Your task to perform on an android device: add a label to a message in the gmail app Image 0: 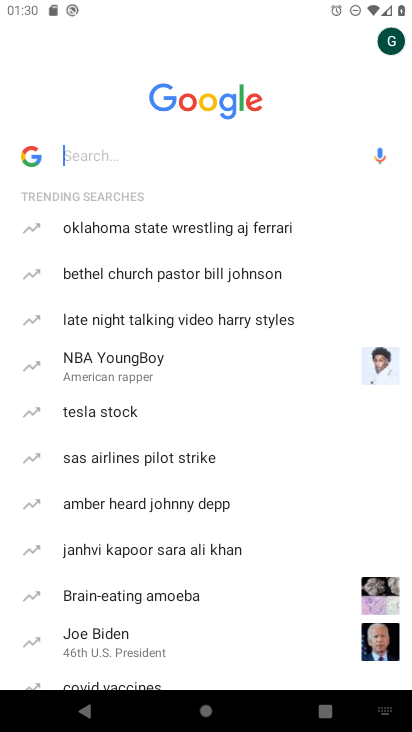
Step 0: press home button
Your task to perform on an android device: add a label to a message in the gmail app Image 1: 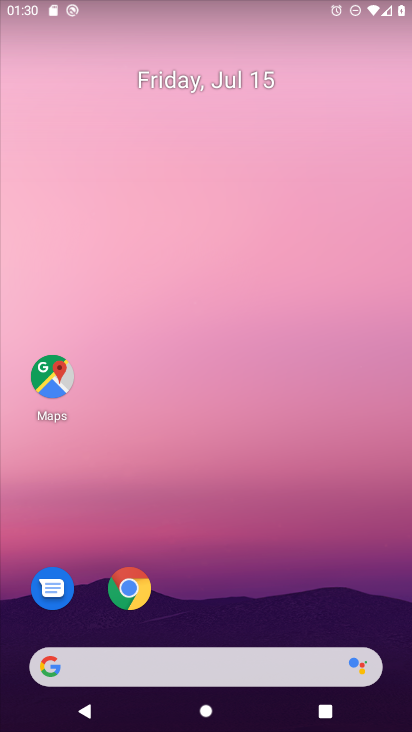
Step 1: drag from (375, 609) to (305, 6)
Your task to perform on an android device: add a label to a message in the gmail app Image 2: 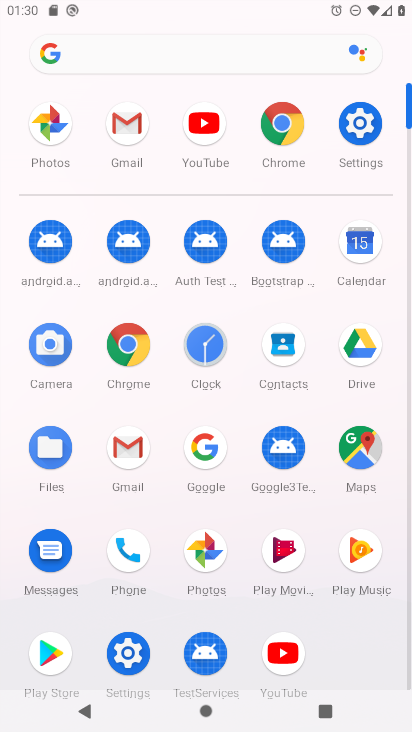
Step 2: click (125, 449)
Your task to perform on an android device: add a label to a message in the gmail app Image 3: 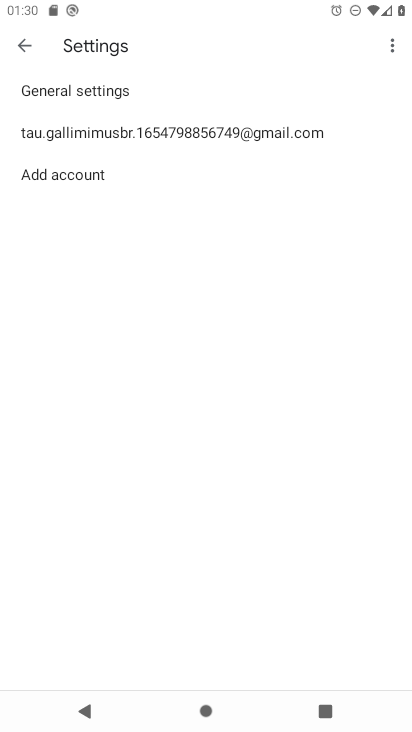
Step 3: press back button
Your task to perform on an android device: add a label to a message in the gmail app Image 4: 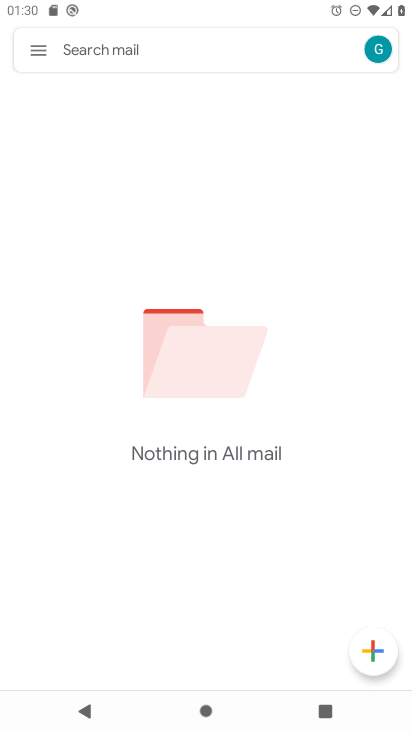
Step 4: click (33, 47)
Your task to perform on an android device: add a label to a message in the gmail app Image 5: 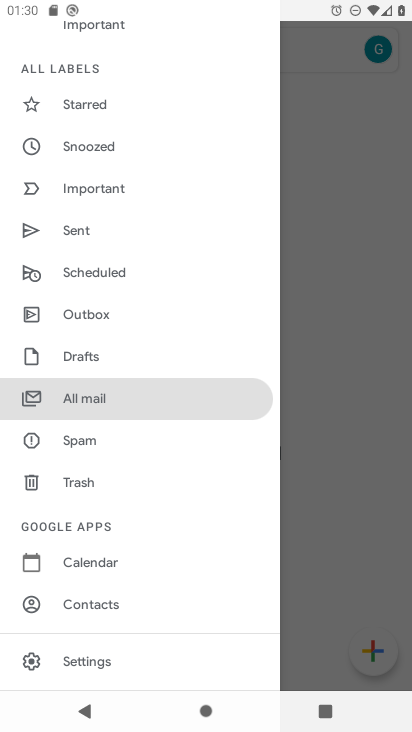
Step 5: click (96, 392)
Your task to perform on an android device: add a label to a message in the gmail app Image 6: 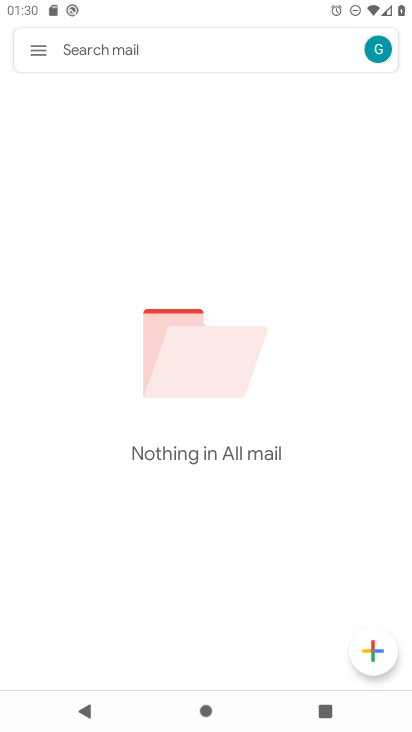
Step 6: task complete